Your task to perform on an android device: Check the weather Image 0: 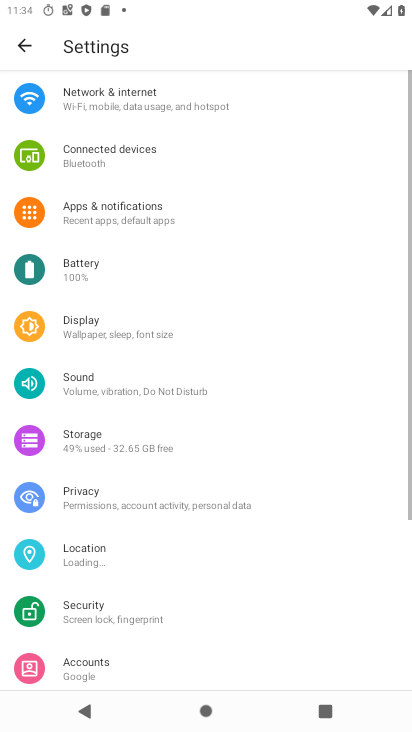
Step 0: press back button
Your task to perform on an android device: Check the weather Image 1: 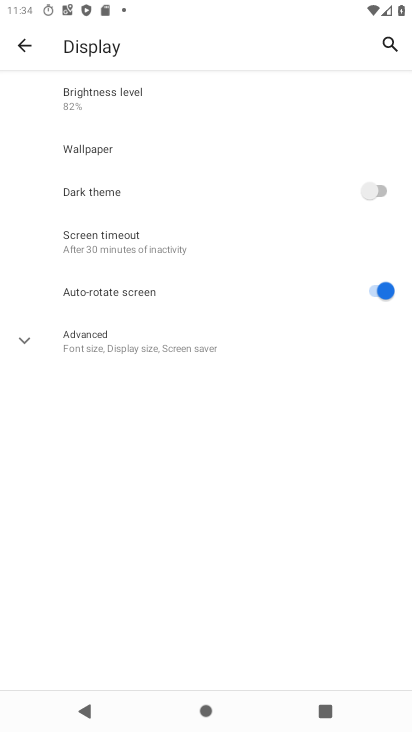
Step 1: press back button
Your task to perform on an android device: Check the weather Image 2: 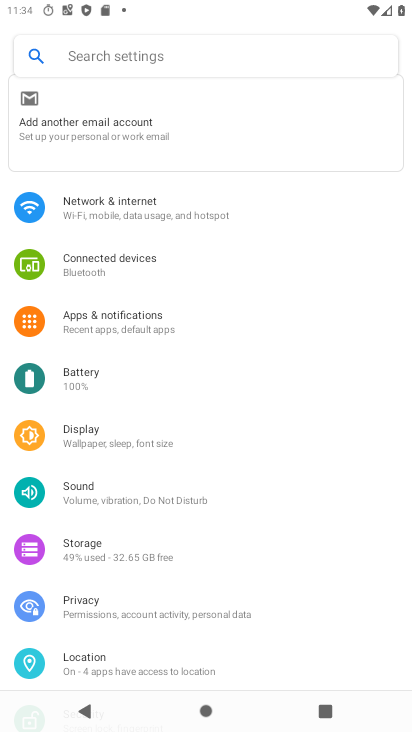
Step 2: press back button
Your task to perform on an android device: Check the weather Image 3: 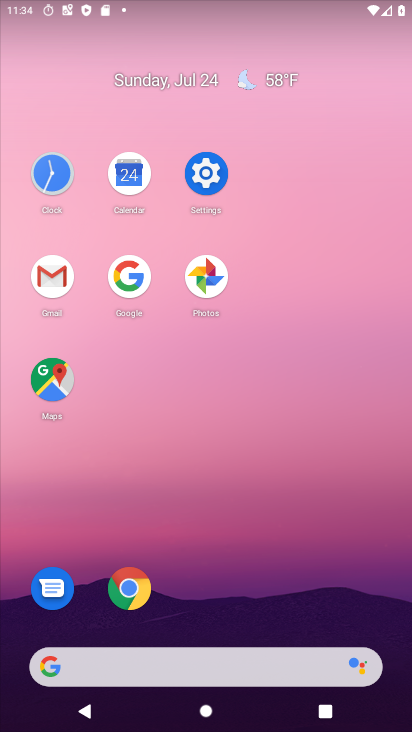
Step 3: click (132, 274)
Your task to perform on an android device: Check the weather Image 4: 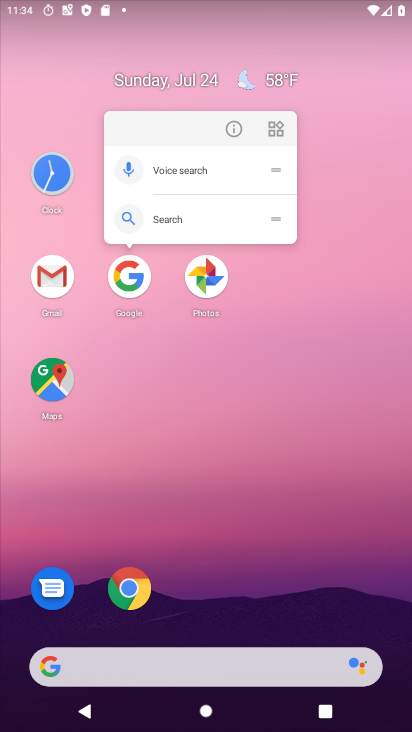
Step 4: click (132, 274)
Your task to perform on an android device: Check the weather Image 5: 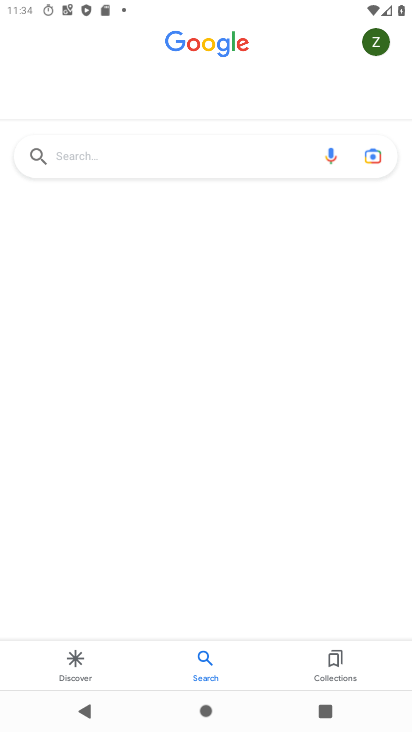
Step 5: click (145, 158)
Your task to perform on an android device: Check the weather Image 6: 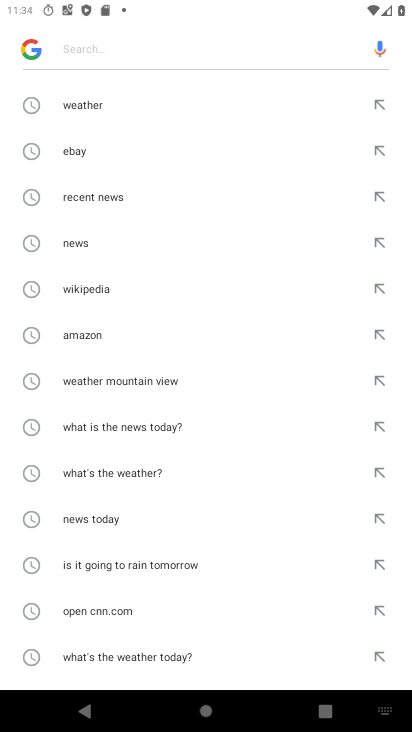
Step 6: click (133, 110)
Your task to perform on an android device: Check the weather Image 7: 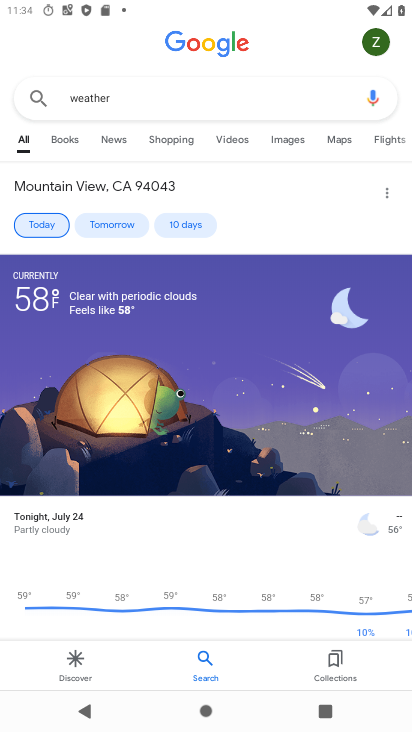
Step 7: task complete